Your task to perform on an android device: Go to eBay Image 0: 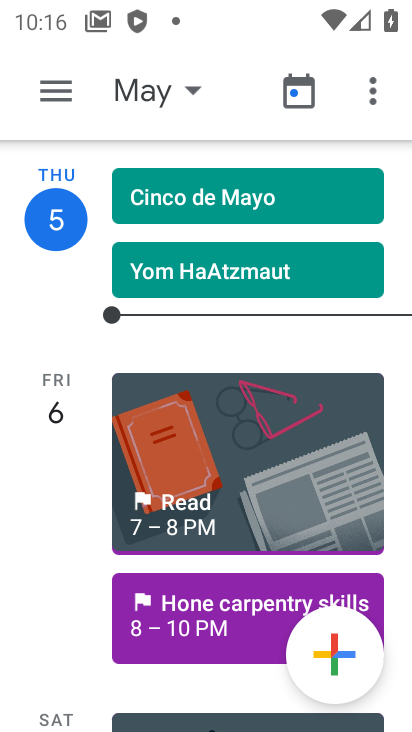
Step 0: press home button
Your task to perform on an android device: Go to eBay Image 1: 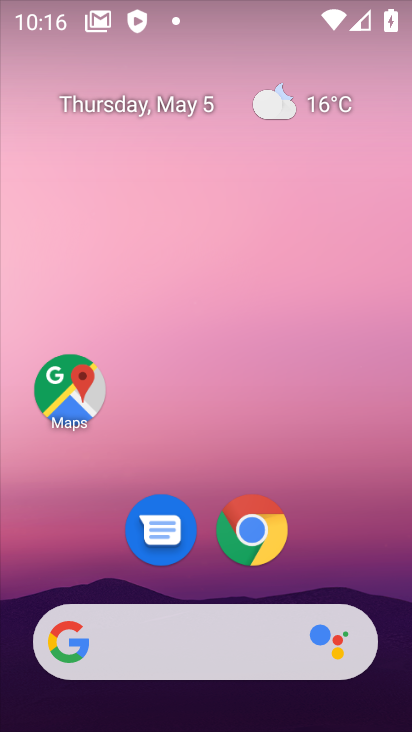
Step 1: click (255, 534)
Your task to perform on an android device: Go to eBay Image 2: 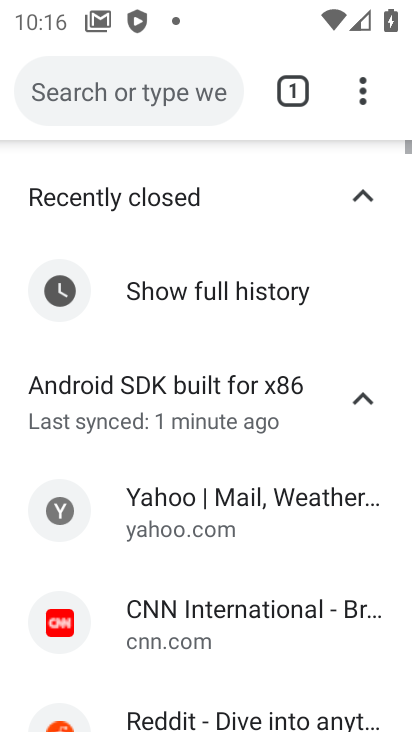
Step 2: drag from (371, 107) to (115, 184)
Your task to perform on an android device: Go to eBay Image 3: 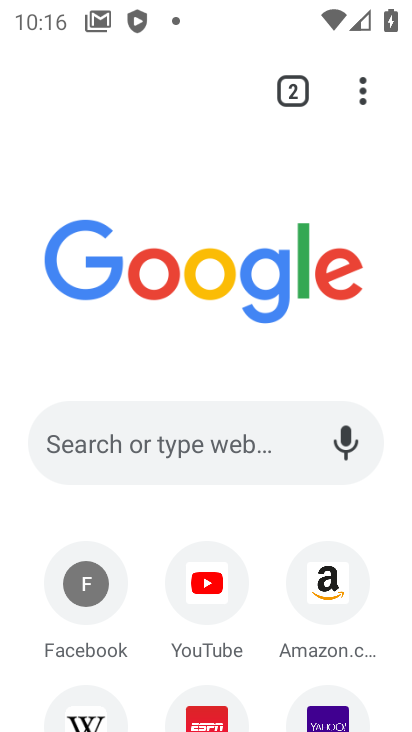
Step 3: drag from (381, 646) to (347, 182)
Your task to perform on an android device: Go to eBay Image 4: 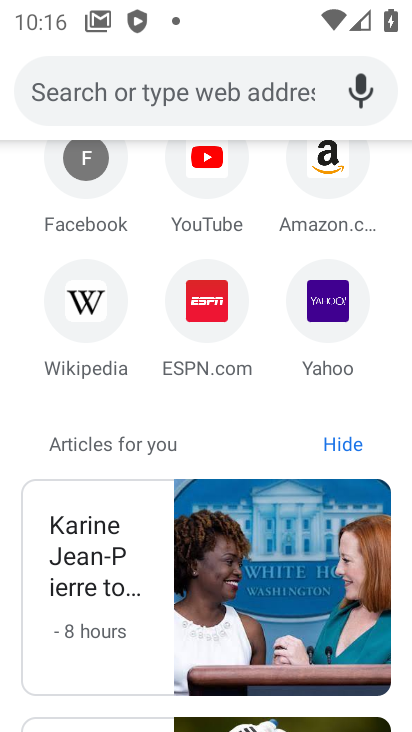
Step 4: drag from (401, 393) to (409, 224)
Your task to perform on an android device: Go to eBay Image 5: 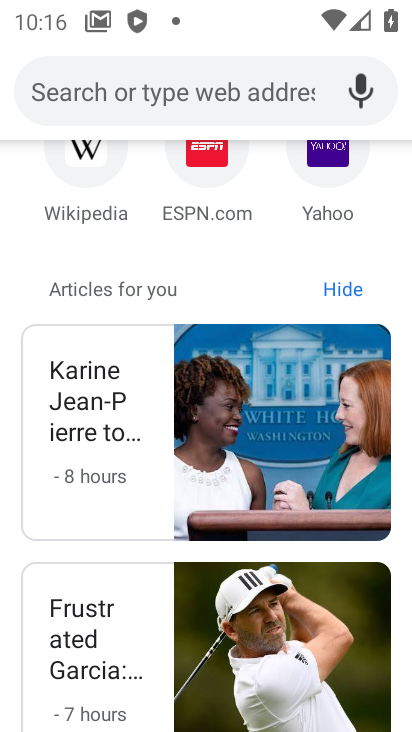
Step 5: drag from (395, 672) to (412, 285)
Your task to perform on an android device: Go to eBay Image 6: 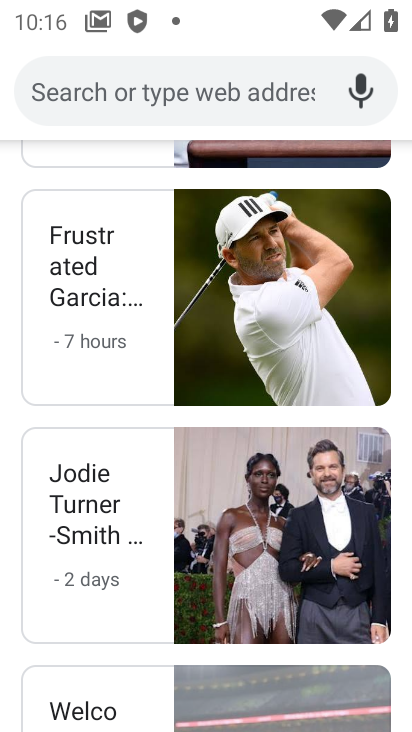
Step 6: drag from (401, 646) to (395, 185)
Your task to perform on an android device: Go to eBay Image 7: 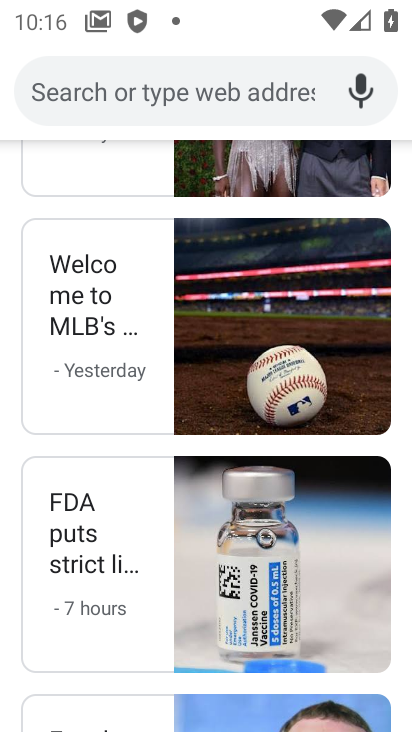
Step 7: drag from (401, 514) to (329, 71)
Your task to perform on an android device: Go to eBay Image 8: 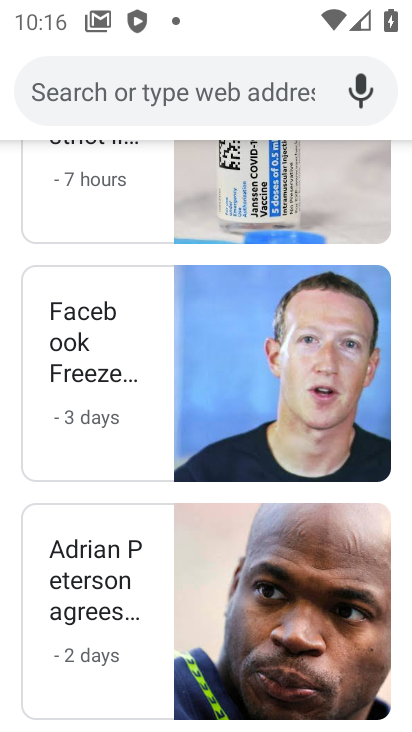
Step 8: drag from (405, 535) to (365, 91)
Your task to perform on an android device: Go to eBay Image 9: 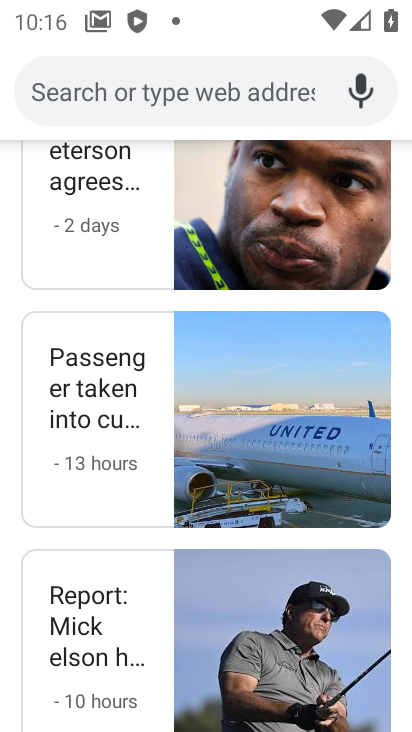
Step 9: drag from (405, 564) to (324, 140)
Your task to perform on an android device: Go to eBay Image 10: 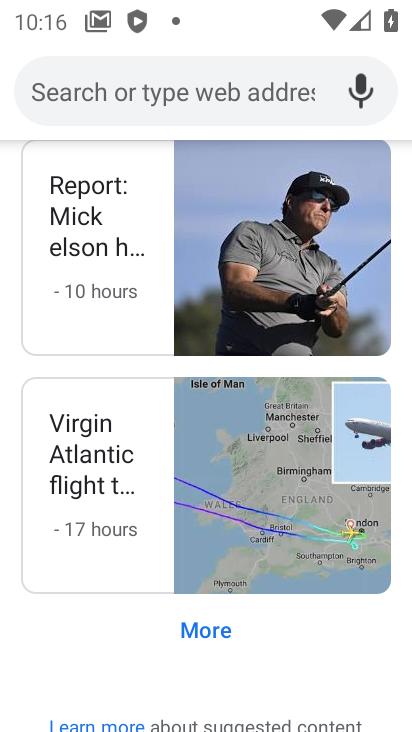
Step 10: drag from (402, 354) to (411, 306)
Your task to perform on an android device: Go to eBay Image 11: 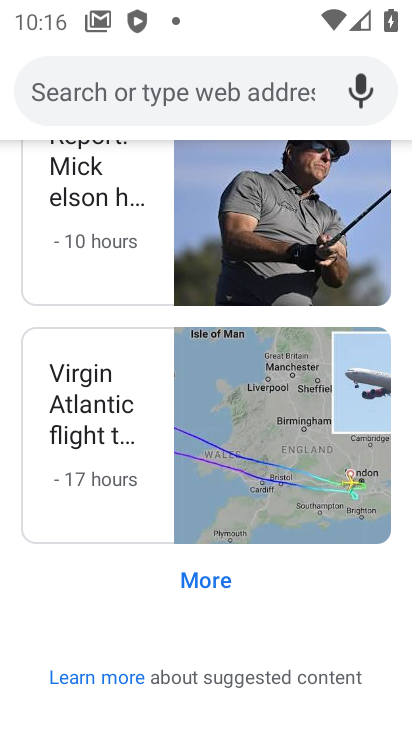
Step 11: drag from (398, 286) to (407, 513)
Your task to perform on an android device: Go to eBay Image 12: 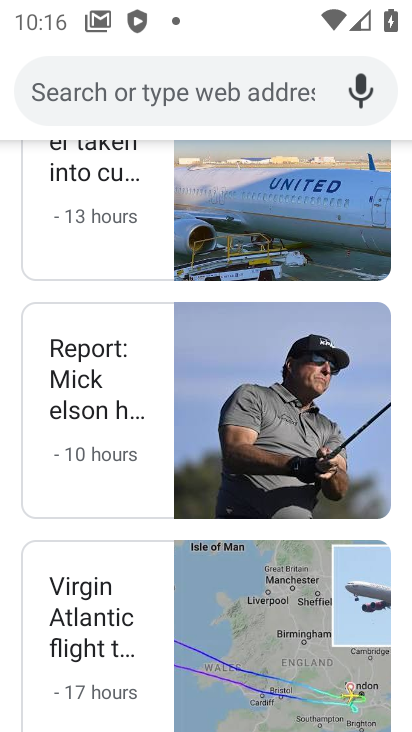
Step 12: drag from (396, 225) to (409, 438)
Your task to perform on an android device: Go to eBay Image 13: 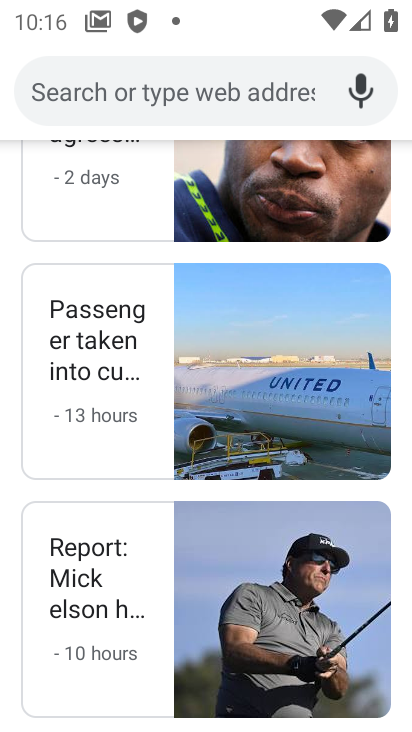
Step 13: drag from (397, 194) to (411, 575)
Your task to perform on an android device: Go to eBay Image 14: 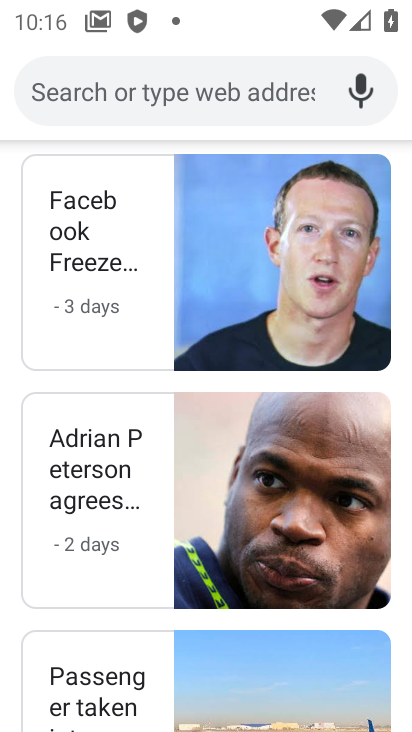
Step 14: drag from (409, 235) to (411, 612)
Your task to perform on an android device: Go to eBay Image 15: 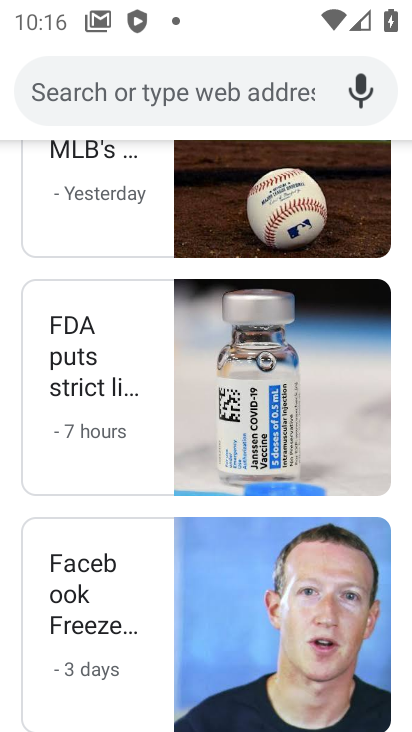
Step 15: drag from (402, 262) to (411, 352)
Your task to perform on an android device: Go to eBay Image 16: 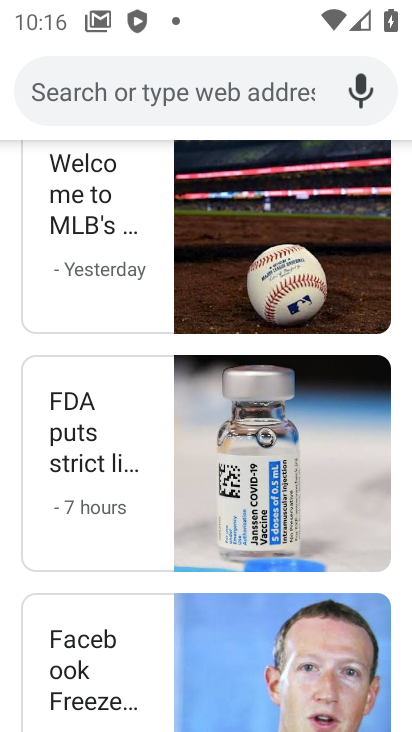
Step 16: drag from (397, 257) to (406, 687)
Your task to perform on an android device: Go to eBay Image 17: 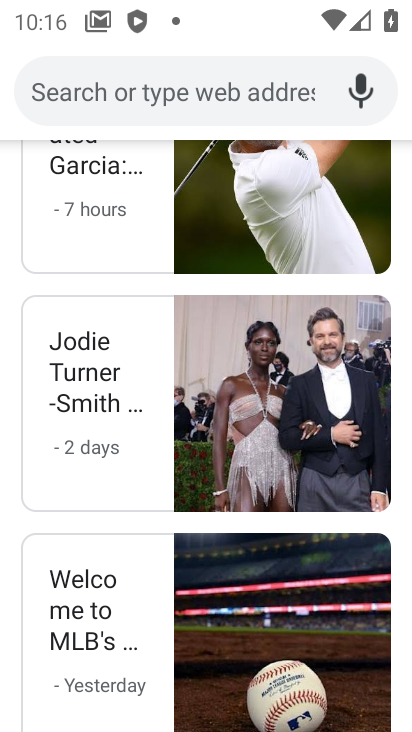
Step 17: drag from (404, 272) to (410, 215)
Your task to perform on an android device: Go to eBay Image 18: 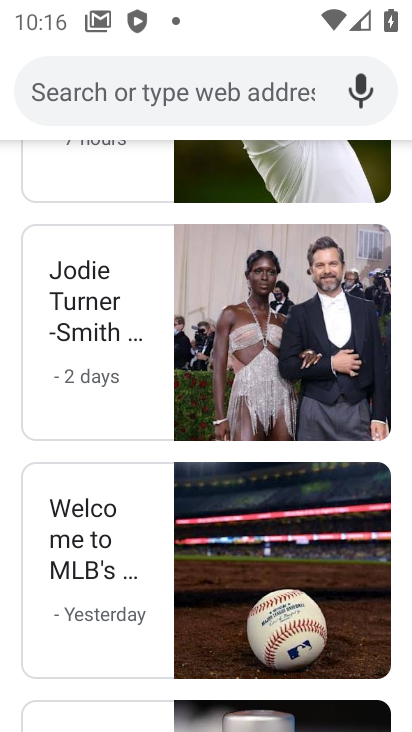
Step 18: drag from (400, 221) to (411, 167)
Your task to perform on an android device: Go to eBay Image 19: 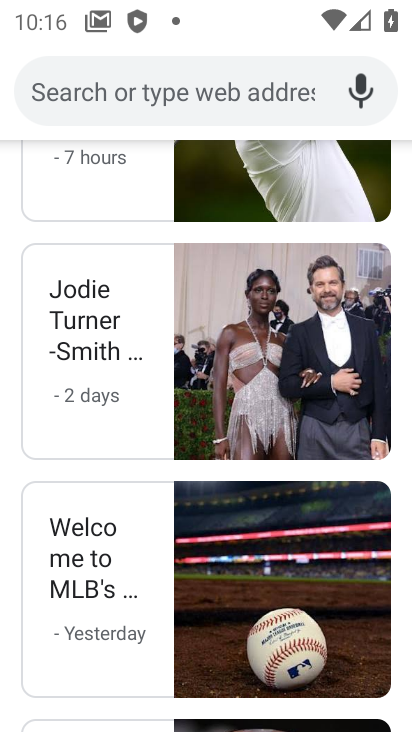
Step 19: drag from (409, 192) to (408, 358)
Your task to perform on an android device: Go to eBay Image 20: 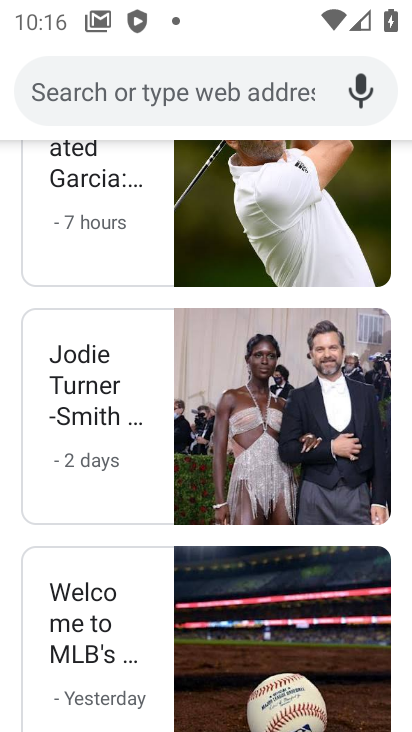
Step 20: drag from (399, 186) to (409, 646)
Your task to perform on an android device: Go to eBay Image 21: 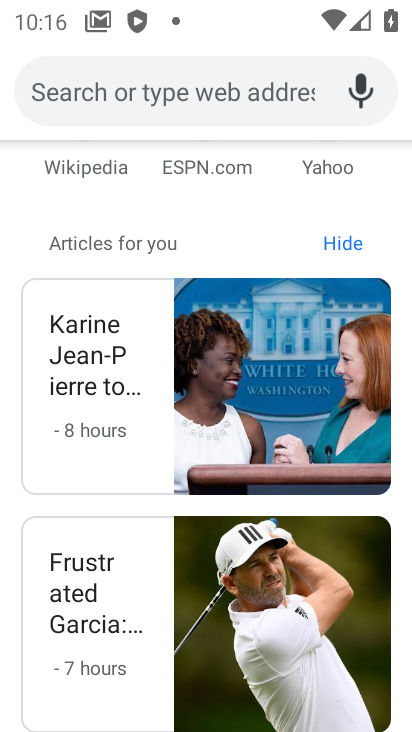
Step 21: drag from (403, 287) to (388, 624)
Your task to perform on an android device: Go to eBay Image 22: 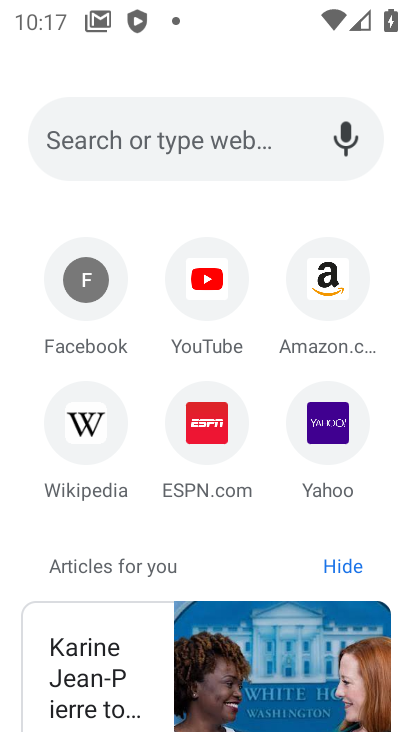
Step 22: click (152, 132)
Your task to perform on an android device: Go to eBay Image 23: 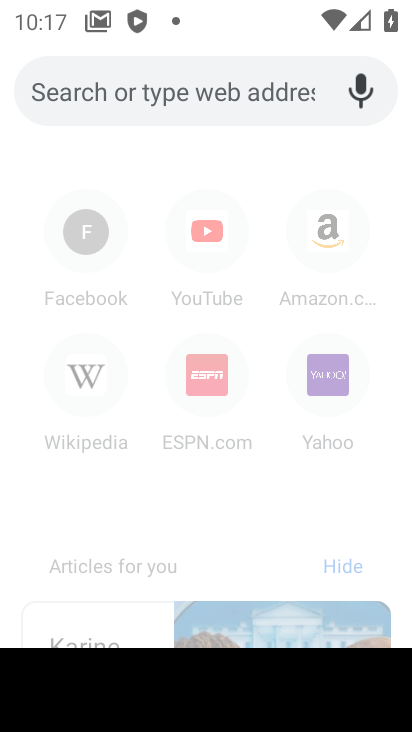
Step 23: type "ebay"
Your task to perform on an android device: Go to eBay Image 24: 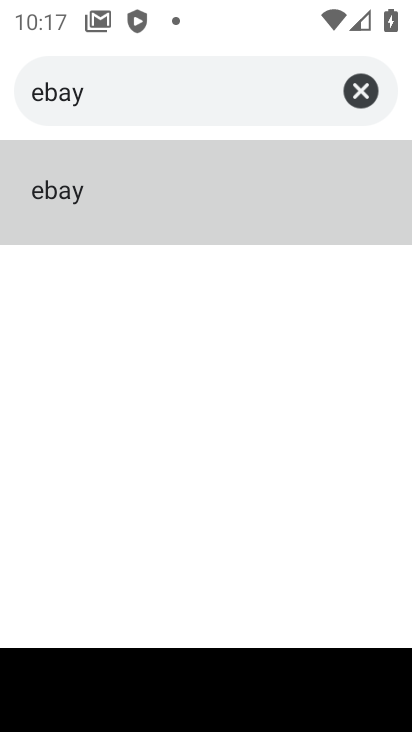
Step 24: click (117, 205)
Your task to perform on an android device: Go to eBay Image 25: 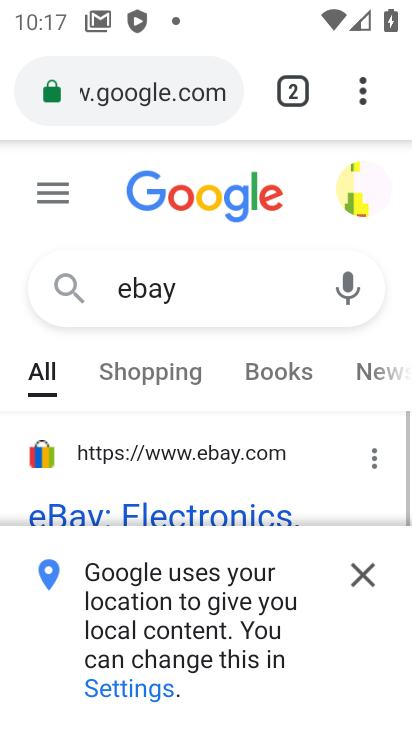
Step 25: click (356, 582)
Your task to perform on an android device: Go to eBay Image 26: 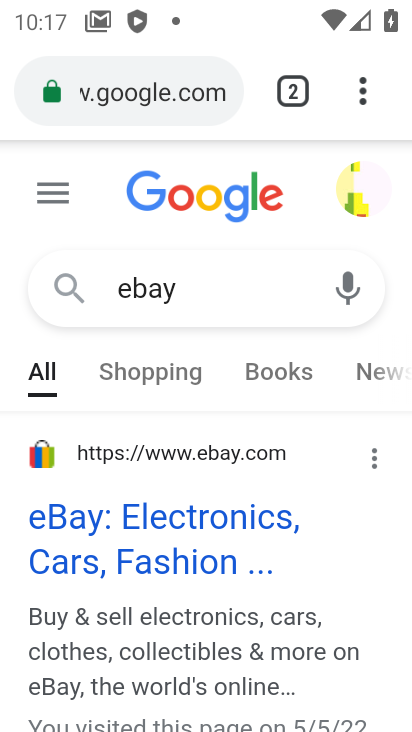
Step 26: click (155, 515)
Your task to perform on an android device: Go to eBay Image 27: 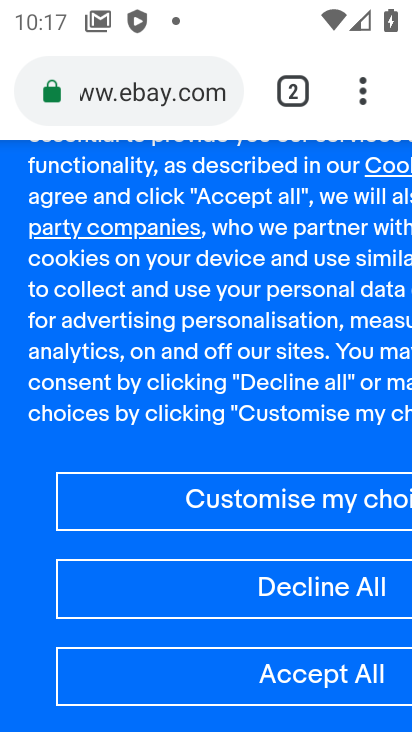
Step 27: task complete